Your task to perform on an android device: Open calendar and show me the second week of next month Image 0: 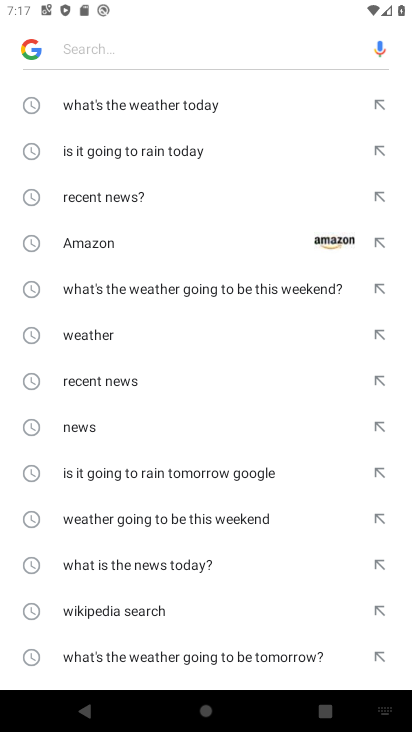
Step 0: press home button
Your task to perform on an android device: Open calendar and show me the second week of next month Image 1: 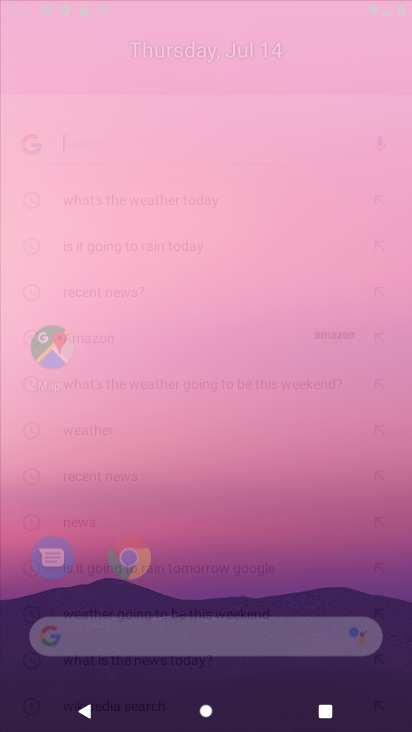
Step 1: drag from (359, 648) to (245, 56)
Your task to perform on an android device: Open calendar and show me the second week of next month Image 2: 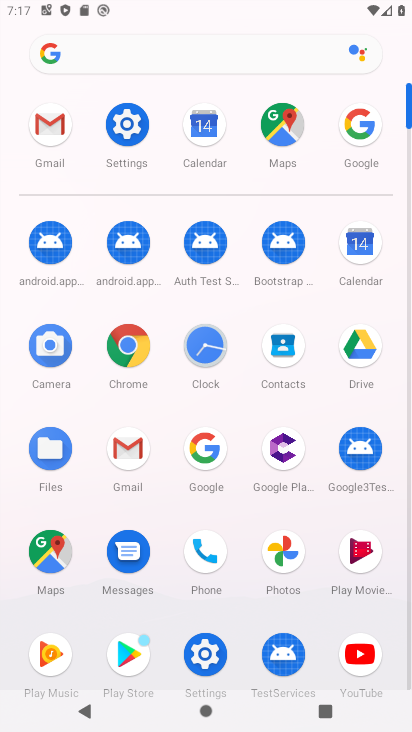
Step 2: click (362, 231)
Your task to perform on an android device: Open calendar and show me the second week of next month Image 3: 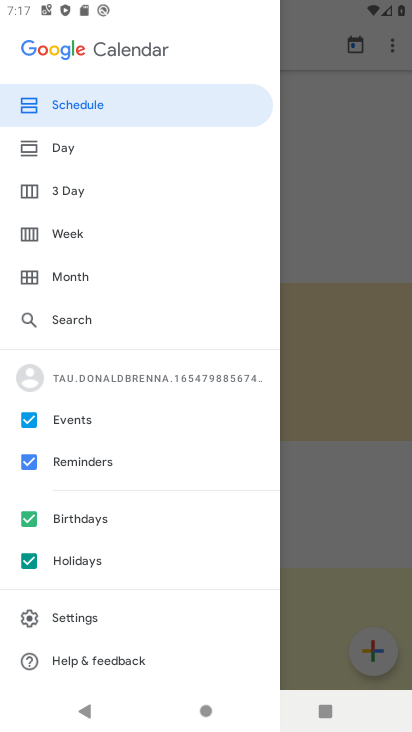
Step 3: press back button
Your task to perform on an android device: Open calendar and show me the second week of next month Image 4: 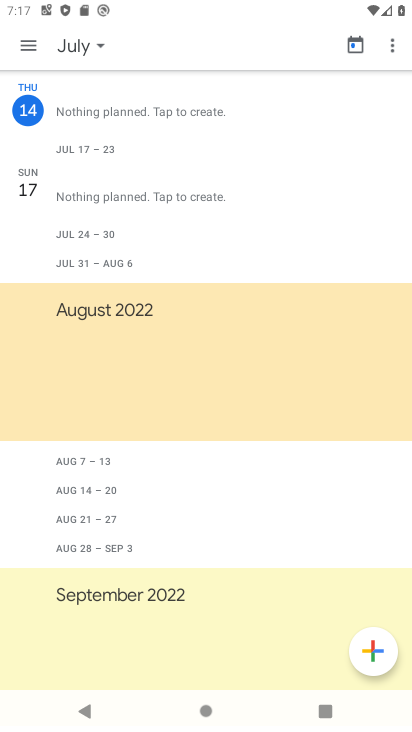
Step 4: click (89, 37)
Your task to perform on an android device: Open calendar and show me the second week of next month Image 5: 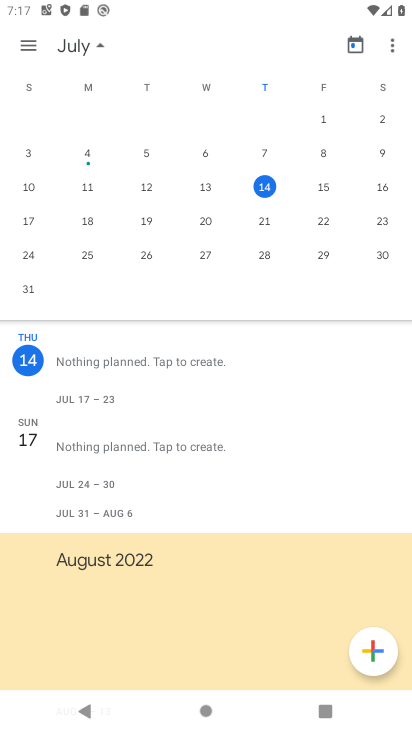
Step 5: drag from (366, 142) to (27, 183)
Your task to perform on an android device: Open calendar and show me the second week of next month Image 6: 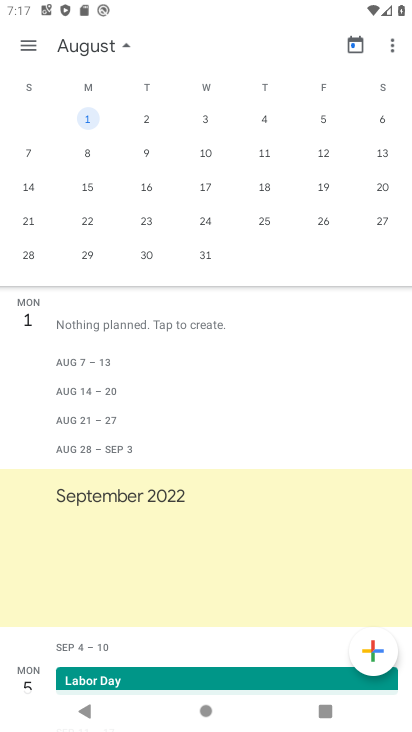
Step 6: click (26, 187)
Your task to perform on an android device: Open calendar and show me the second week of next month Image 7: 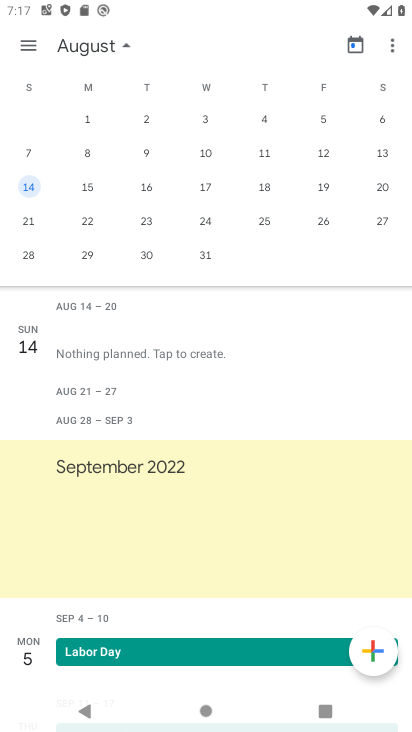
Step 7: task complete